Your task to perform on an android device: change the clock style Image 0: 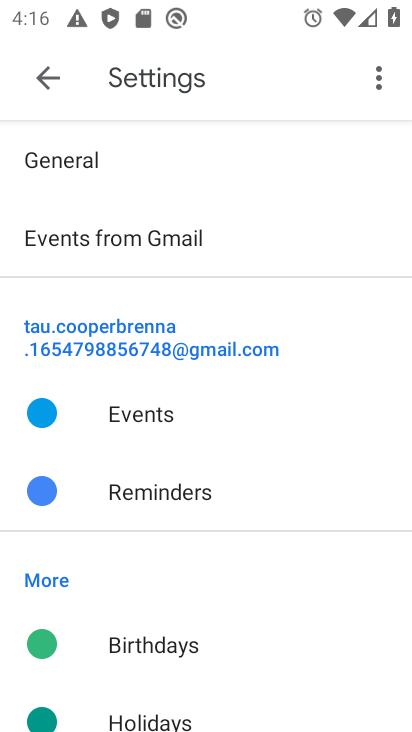
Step 0: press home button
Your task to perform on an android device: change the clock style Image 1: 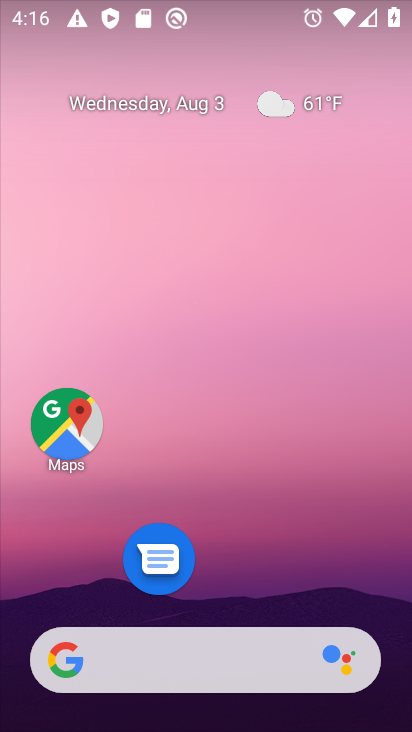
Step 1: drag from (176, 618) to (178, 153)
Your task to perform on an android device: change the clock style Image 2: 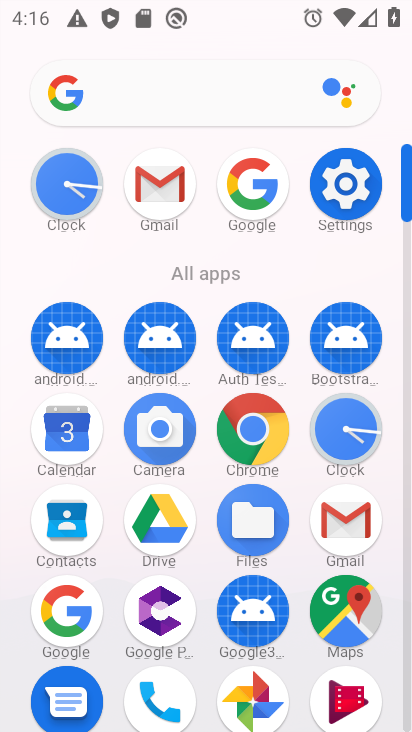
Step 2: click (344, 431)
Your task to perform on an android device: change the clock style Image 3: 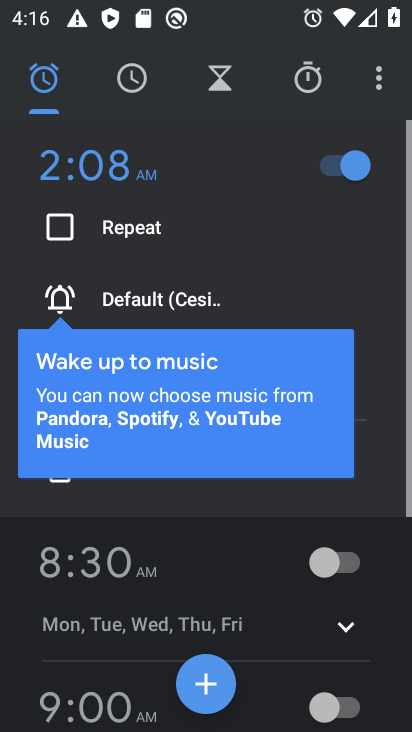
Step 3: click (383, 79)
Your task to perform on an android device: change the clock style Image 4: 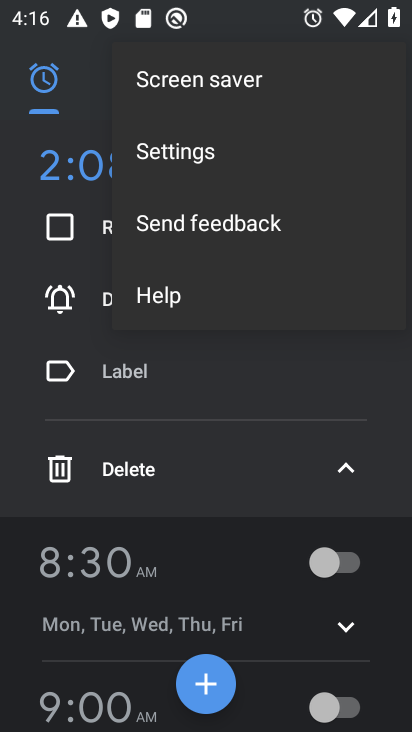
Step 4: click (220, 145)
Your task to perform on an android device: change the clock style Image 5: 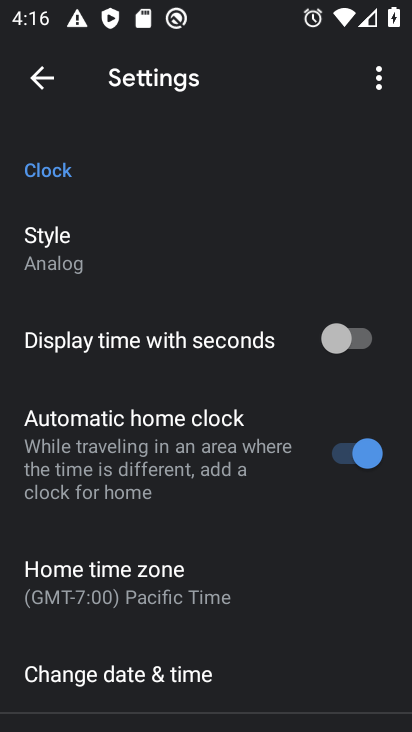
Step 5: click (32, 249)
Your task to perform on an android device: change the clock style Image 6: 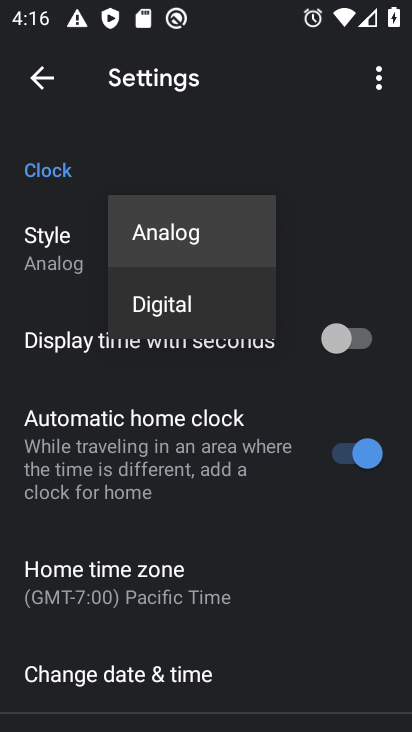
Step 6: click (173, 304)
Your task to perform on an android device: change the clock style Image 7: 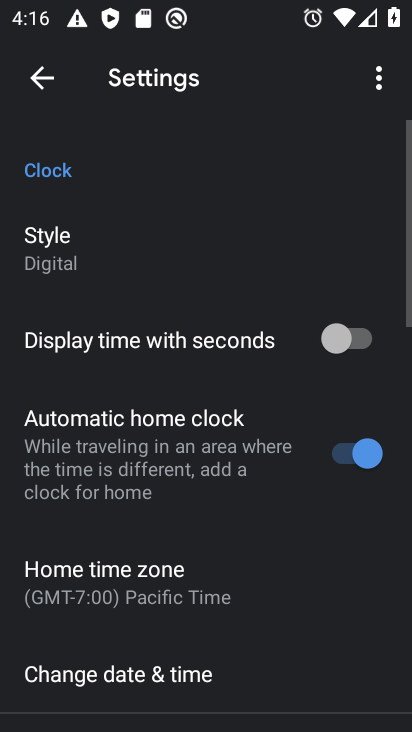
Step 7: task complete